Your task to perform on an android device: stop showing notifications on the lock screen Image 0: 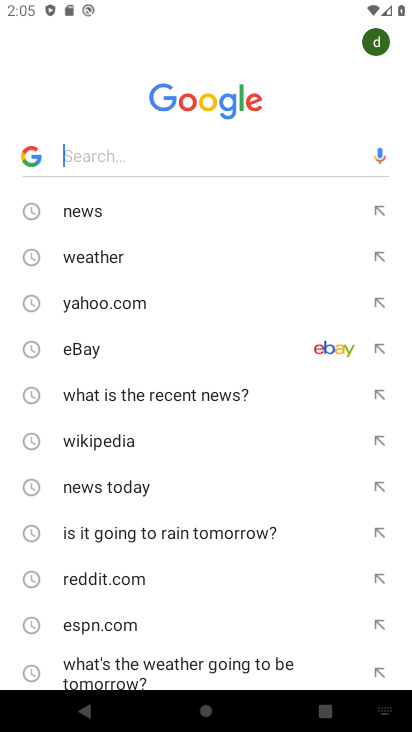
Step 0: press home button
Your task to perform on an android device: stop showing notifications on the lock screen Image 1: 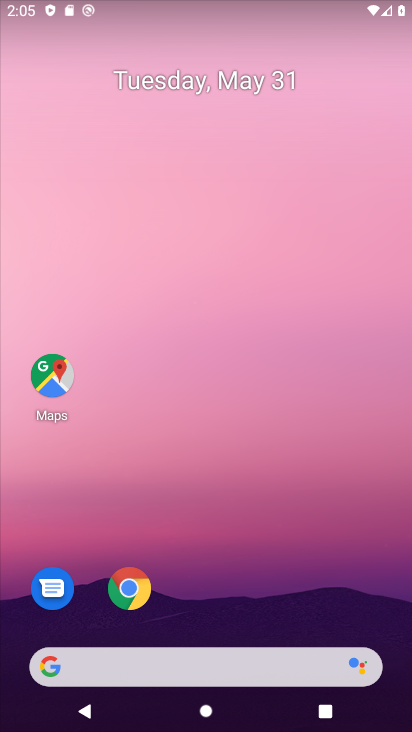
Step 1: drag from (157, 722) to (206, 0)
Your task to perform on an android device: stop showing notifications on the lock screen Image 2: 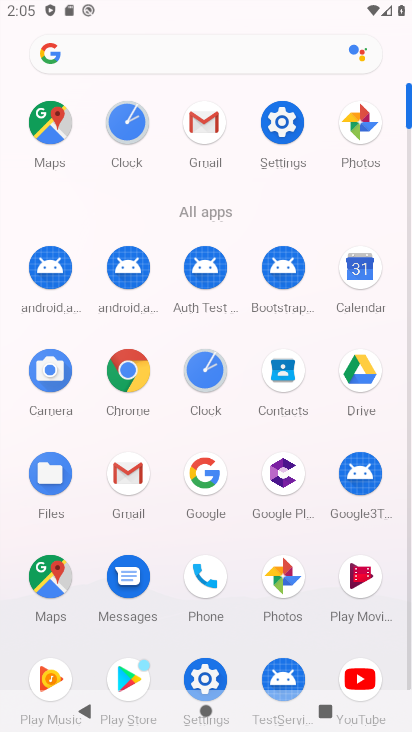
Step 2: click (292, 140)
Your task to perform on an android device: stop showing notifications on the lock screen Image 3: 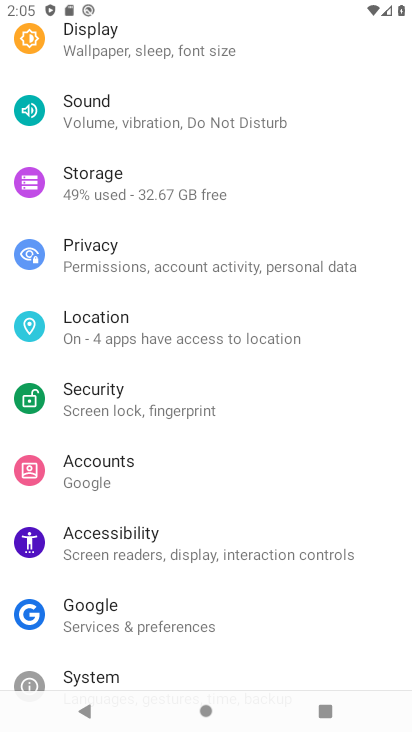
Step 3: drag from (166, 94) to (73, 585)
Your task to perform on an android device: stop showing notifications on the lock screen Image 4: 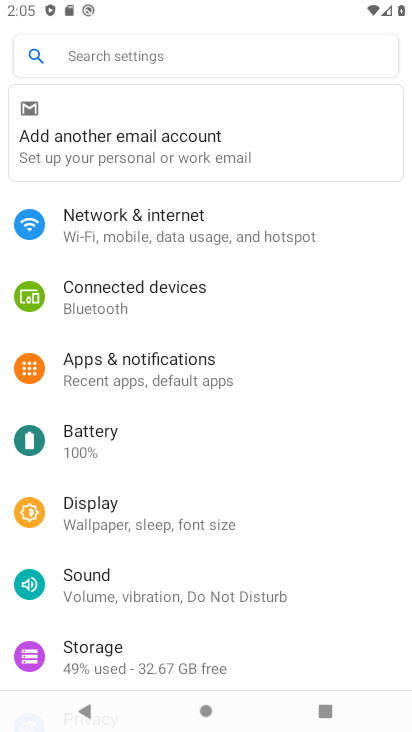
Step 4: click (189, 376)
Your task to perform on an android device: stop showing notifications on the lock screen Image 5: 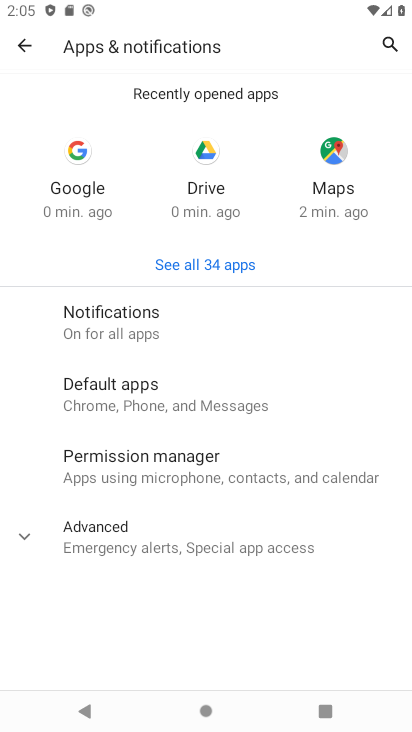
Step 5: click (213, 344)
Your task to perform on an android device: stop showing notifications on the lock screen Image 6: 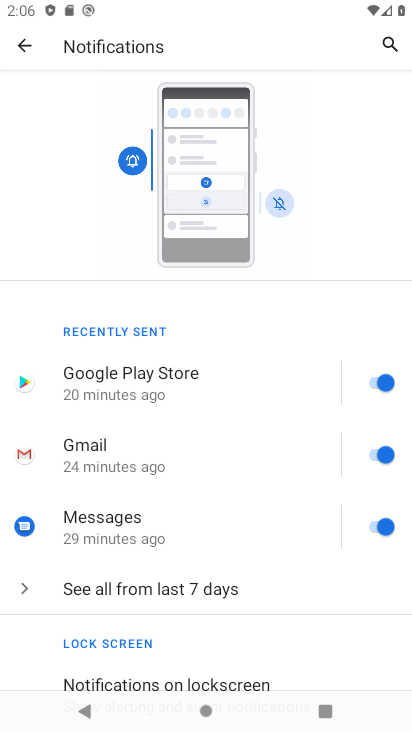
Step 6: click (229, 679)
Your task to perform on an android device: stop showing notifications on the lock screen Image 7: 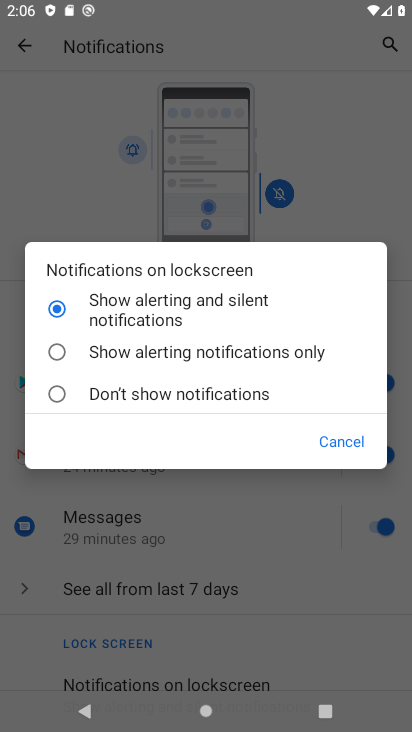
Step 7: click (175, 398)
Your task to perform on an android device: stop showing notifications on the lock screen Image 8: 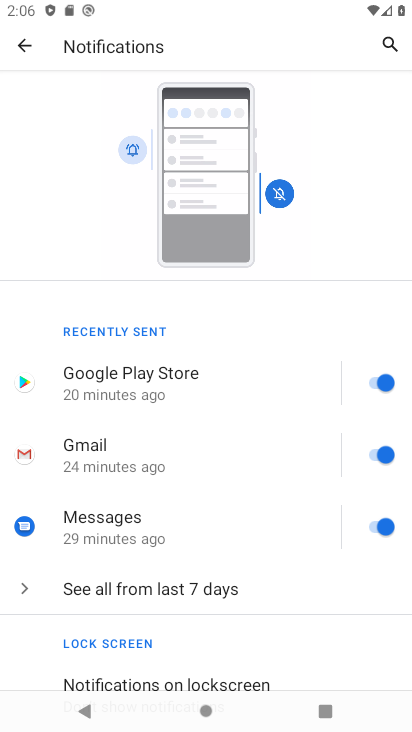
Step 8: task complete